Your task to perform on an android device: check battery use Image 0: 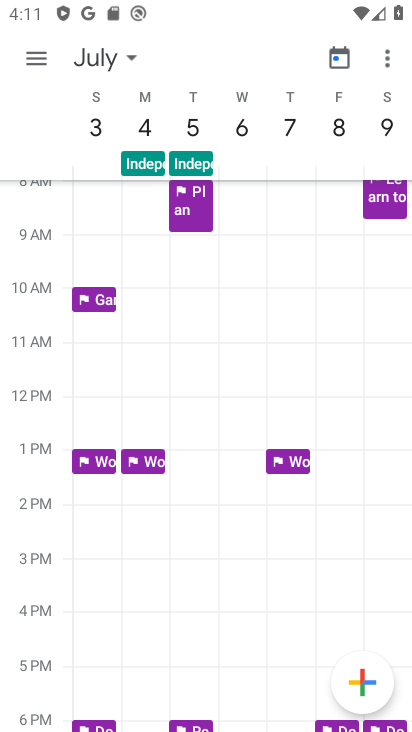
Step 0: press home button
Your task to perform on an android device: check battery use Image 1: 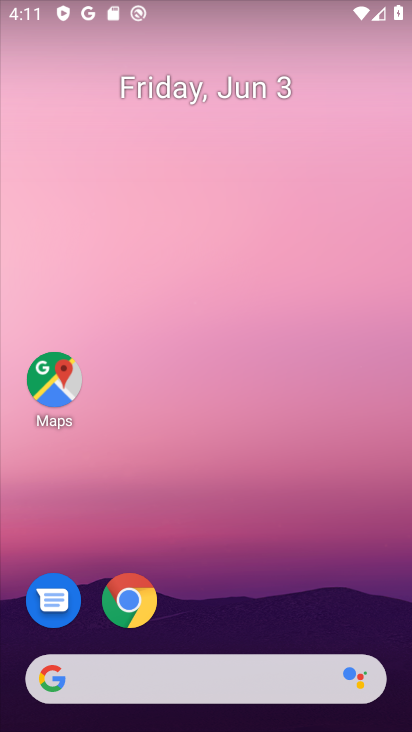
Step 1: click (367, 80)
Your task to perform on an android device: check battery use Image 2: 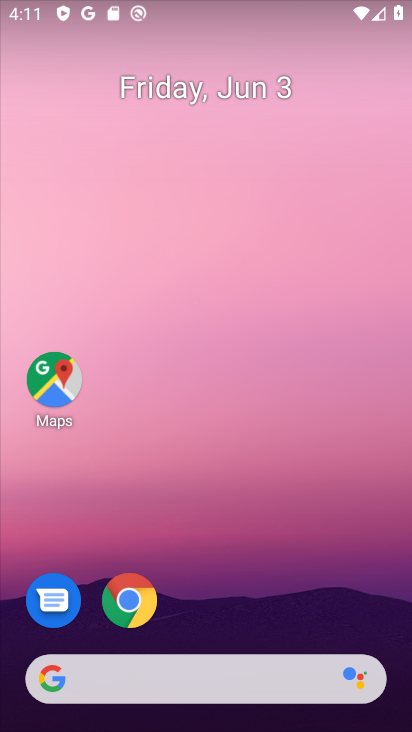
Step 2: drag from (390, 637) to (232, 121)
Your task to perform on an android device: check battery use Image 3: 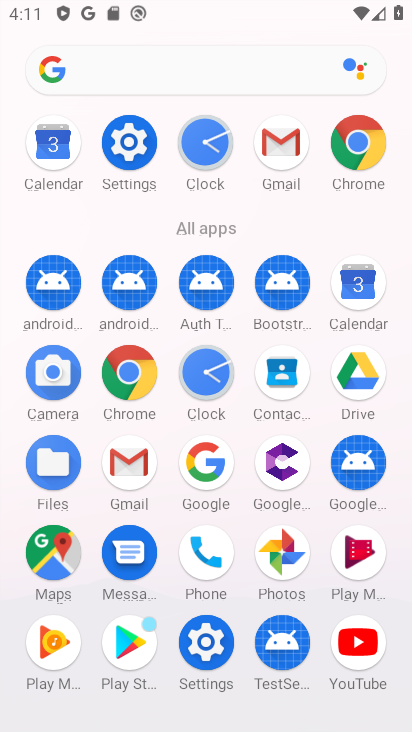
Step 3: click (144, 156)
Your task to perform on an android device: check battery use Image 4: 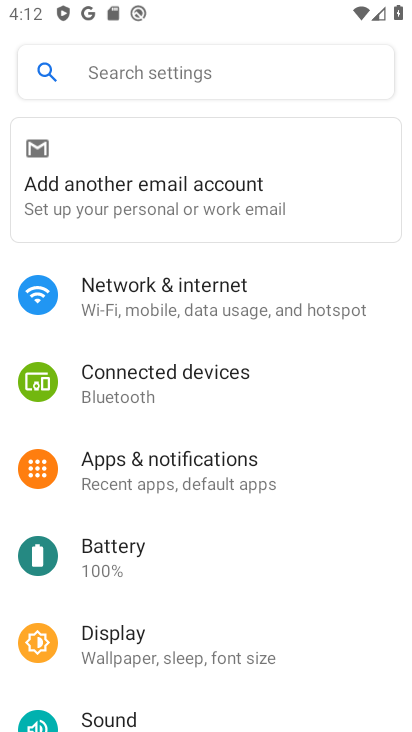
Step 4: click (102, 560)
Your task to perform on an android device: check battery use Image 5: 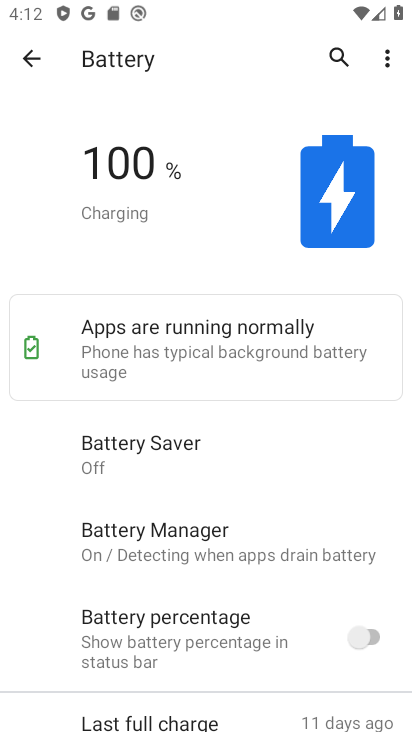
Step 5: task complete